Your task to perform on an android device: Check the news Image 0: 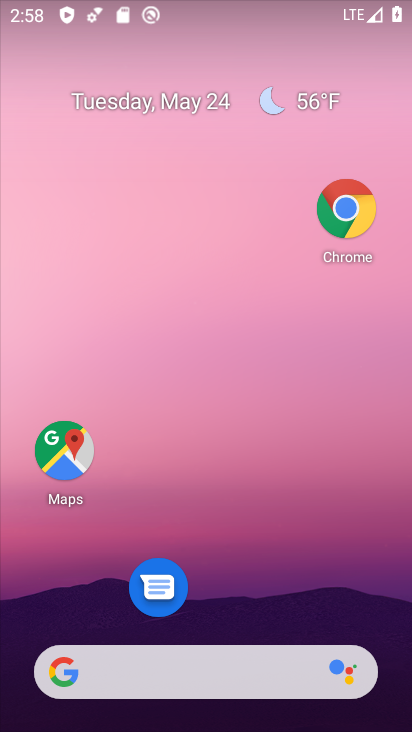
Step 0: click (335, 203)
Your task to perform on an android device: Check the news Image 1: 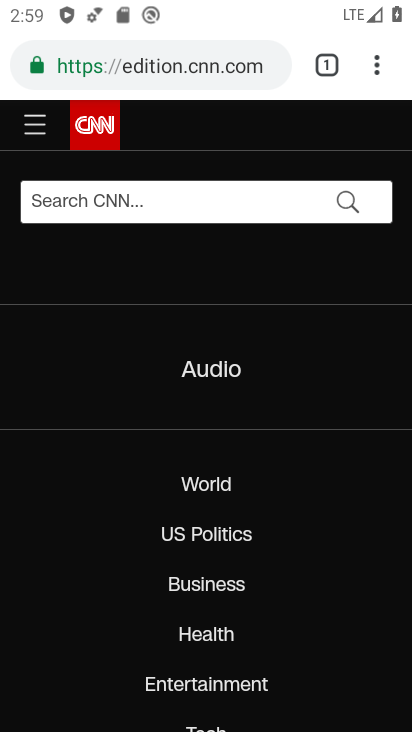
Step 1: click (181, 58)
Your task to perform on an android device: Check the news Image 2: 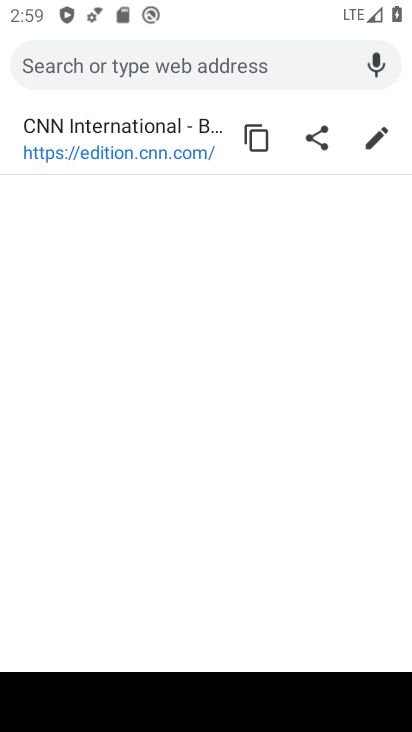
Step 2: type "News"
Your task to perform on an android device: Check the news Image 3: 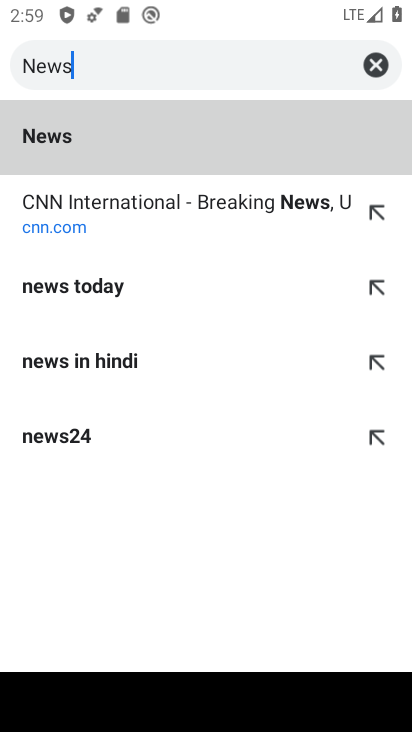
Step 3: click (60, 140)
Your task to perform on an android device: Check the news Image 4: 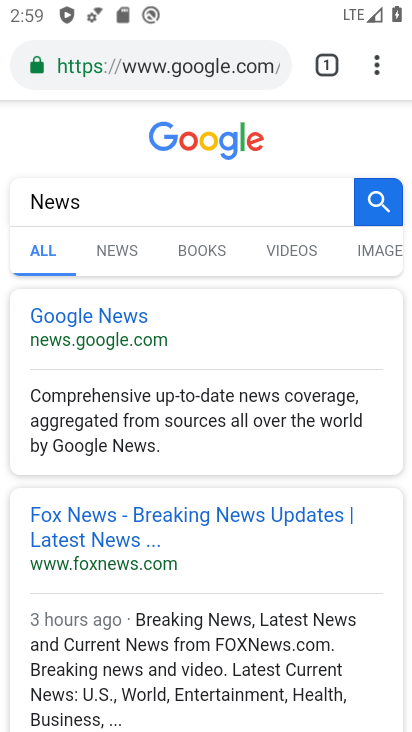
Step 4: task complete